Your task to perform on an android device: What is the recent news? Image 0: 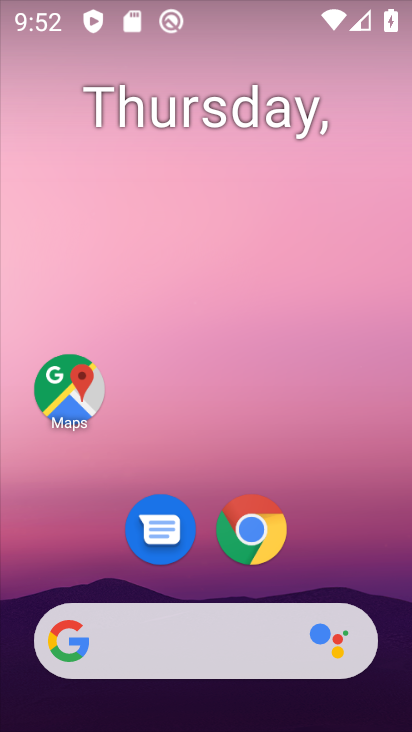
Step 0: drag from (8, 260) to (402, 275)
Your task to perform on an android device: What is the recent news? Image 1: 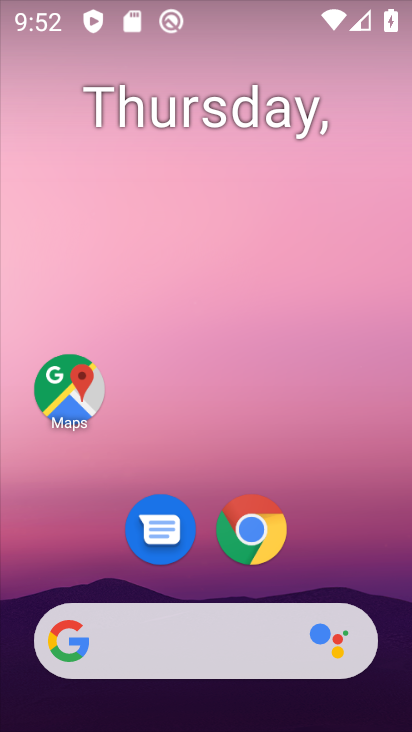
Step 1: drag from (12, 212) to (404, 273)
Your task to perform on an android device: What is the recent news? Image 2: 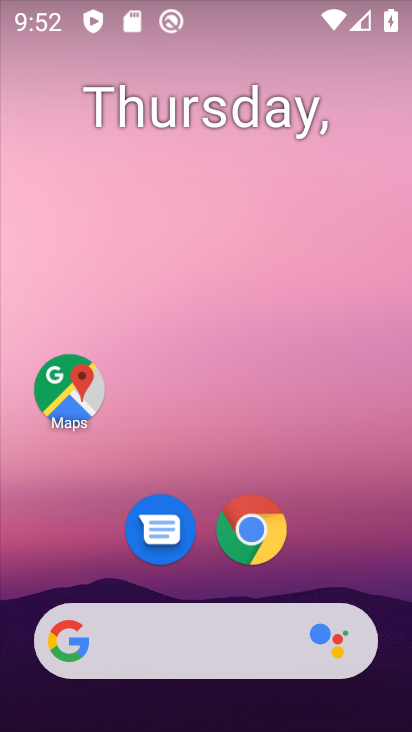
Step 2: drag from (25, 220) to (393, 477)
Your task to perform on an android device: What is the recent news? Image 3: 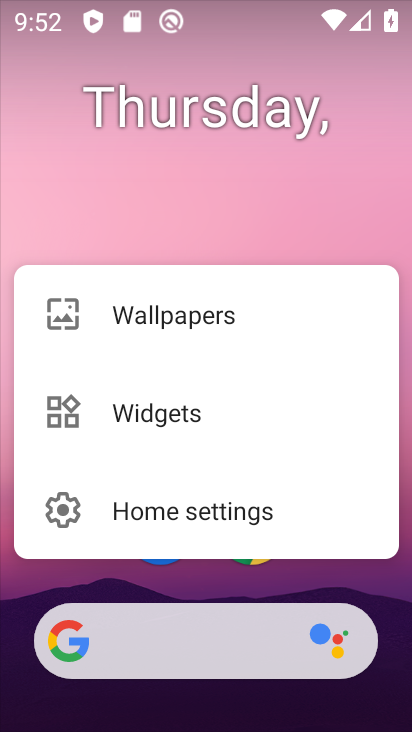
Step 3: click (160, 231)
Your task to perform on an android device: What is the recent news? Image 4: 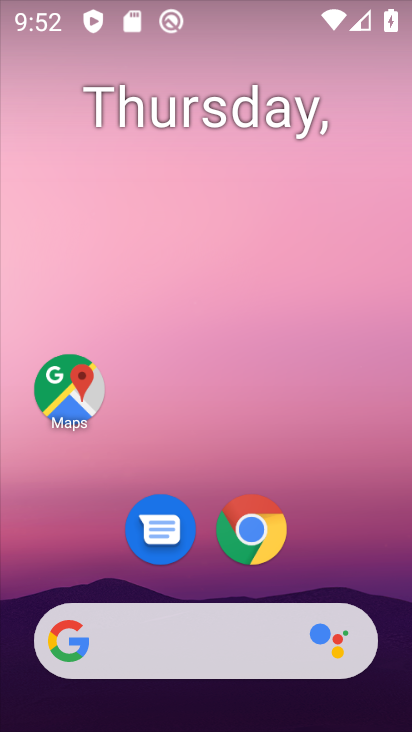
Step 4: drag from (21, 237) to (322, 311)
Your task to perform on an android device: What is the recent news? Image 5: 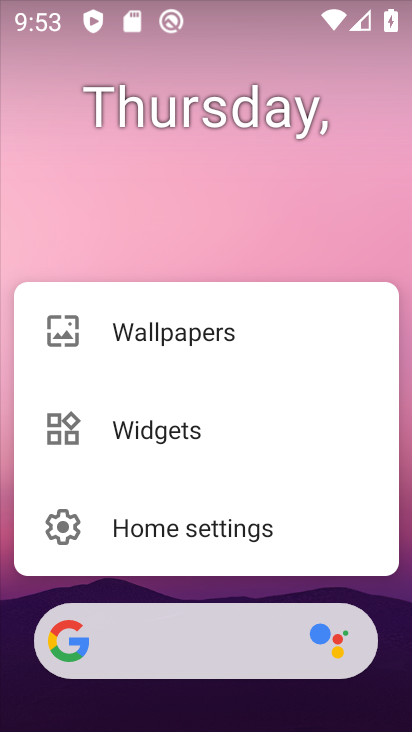
Step 5: click (124, 192)
Your task to perform on an android device: What is the recent news? Image 6: 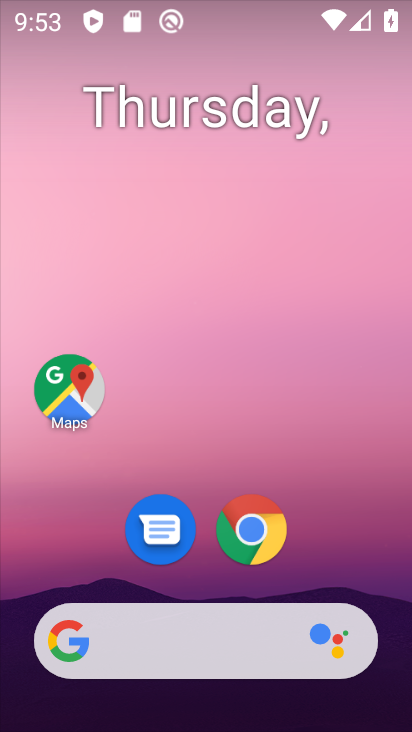
Step 6: task complete